Your task to perform on an android device: empty trash in the gmail app Image 0: 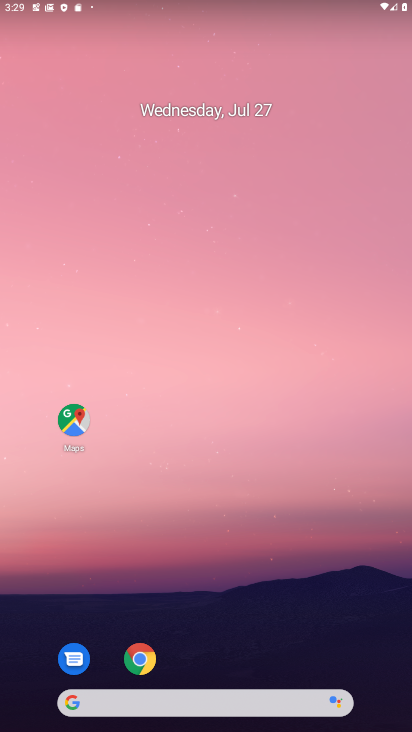
Step 0: drag from (198, 695) to (214, 296)
Your task to perform on an android device: empty trash in the gmail app Image 1: 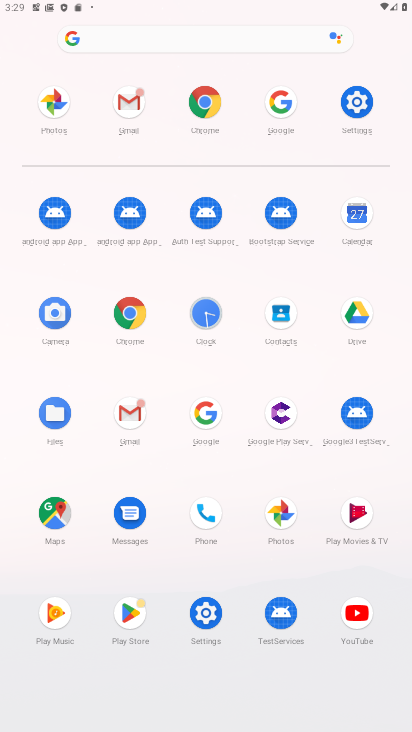
Step 1: click (136, 408)
Your task to perform on an android device: empty trash in the gmail app Image 2: 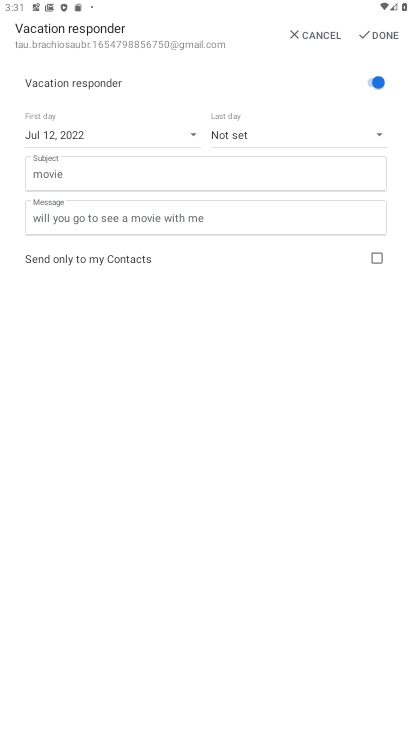
Step 2: click (286, 36)
Your task to perform on an android device: empty trash in the gmail app Image 3: 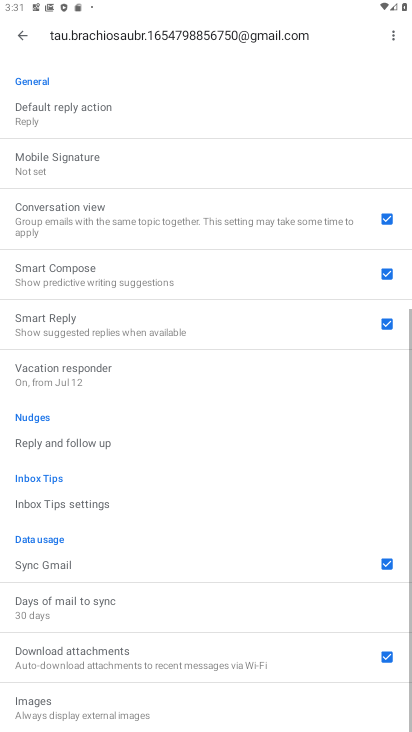
Step 3: click (27, 38)
Your task to perform on an android device: empty trash in the gmail app Image 4: 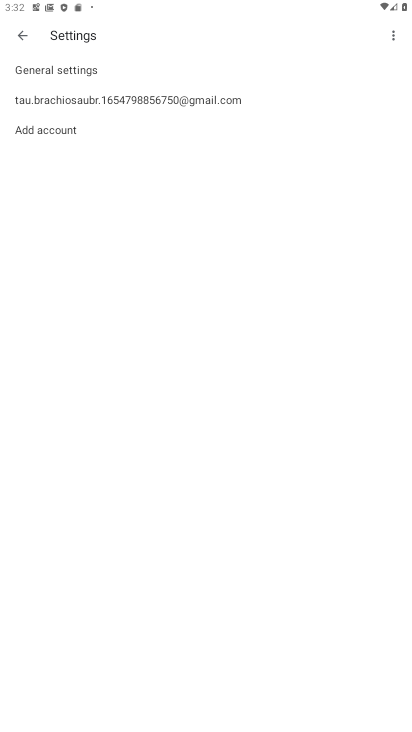
Step 4: click (25, 37)
Your task to perform on an android device: empty trash in the gmail app Image 5: 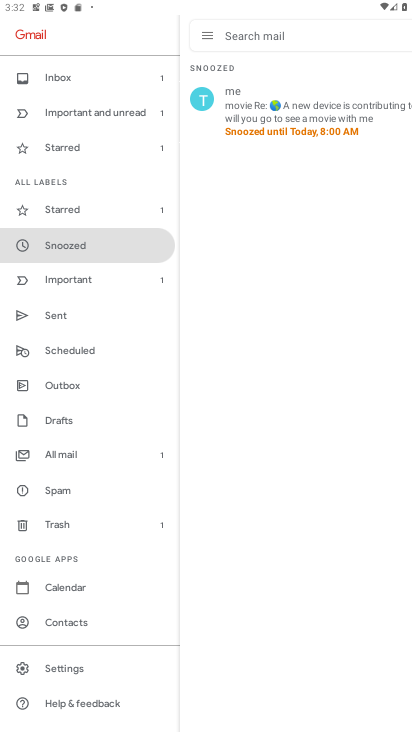
Step 5: click (55, 521)
Your task to perform on an android device: empty trash in the gmail app Image 6: 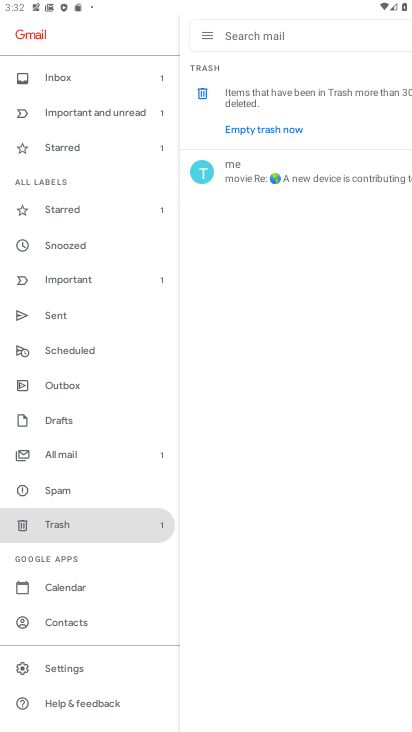
Step 6: task complete